Your task to perform on an android device: manage bookmarks in the chrome app Image 0: 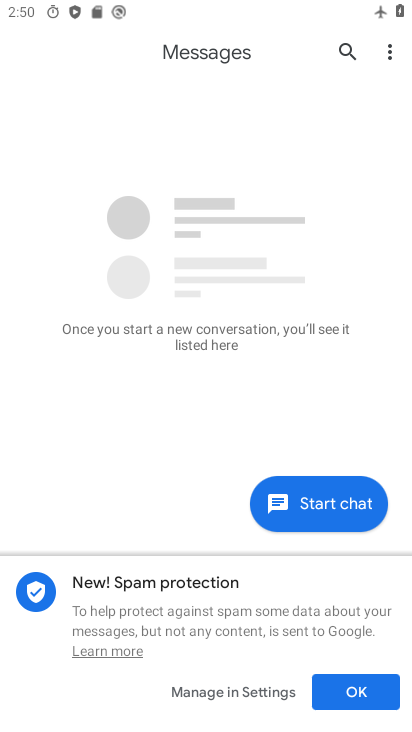
Step 0: press home button
Your task to perform on an android device: manage bookmarks in the chrome app Image 1: 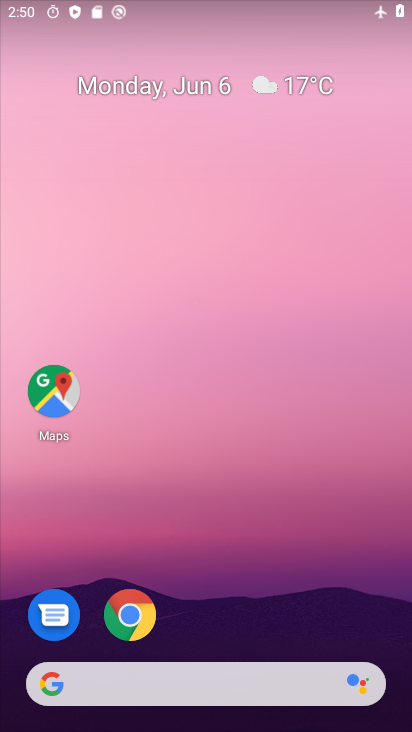
Step 1: click (136, 617)
Your task to perform on an android device: manage bookmarks in the chrome app Image 2: 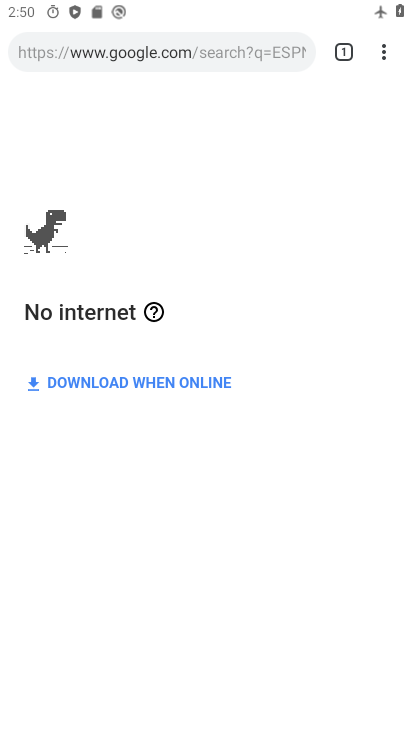
Step 2: click (381, 49)
Your task to perform on an android device: manage bookmarks in the chrome app Image 3: 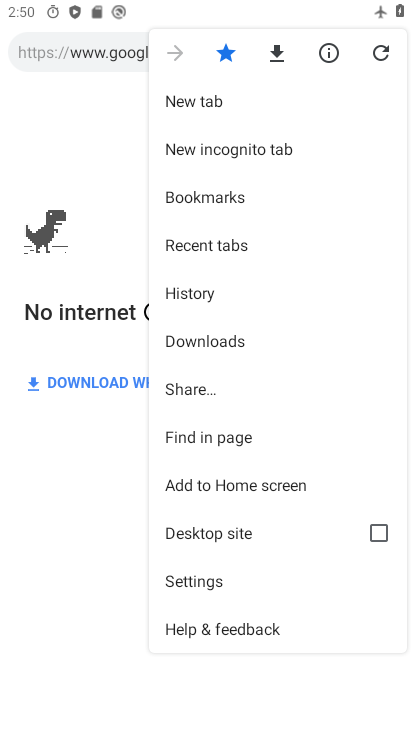
Step 3: click (211, 192)
Your task to perform on an android device: manage bookmarks in the chrome app Image 4: 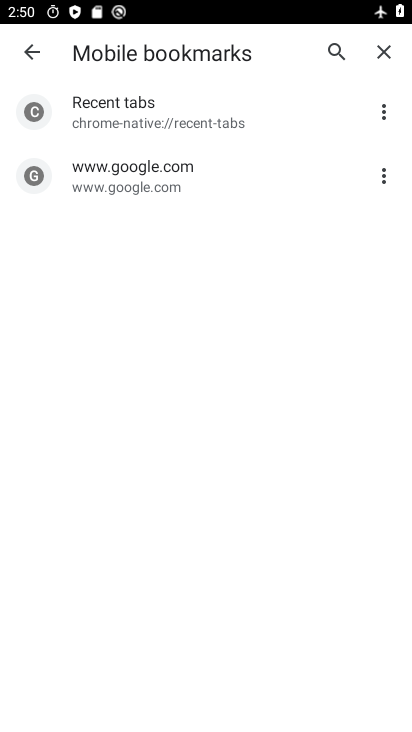
Step 4: click (379, 112)
Your task to perform on an android device: manage bookmarks in the chrome app Image 5: 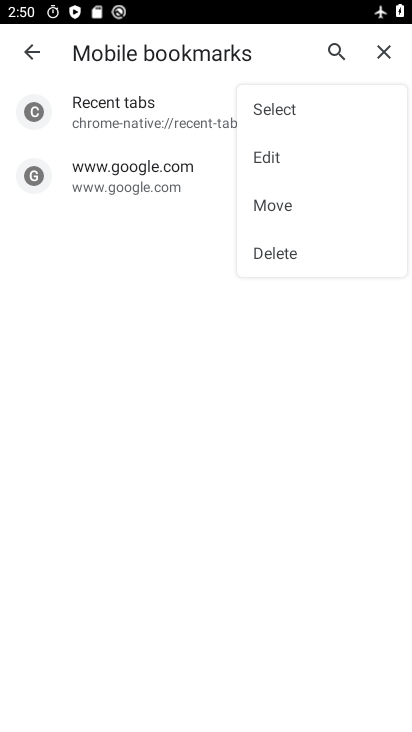
Step 5: click (296, 108)
Your task to perform on an android device: manage bookmarks in the chrome app Image 6: 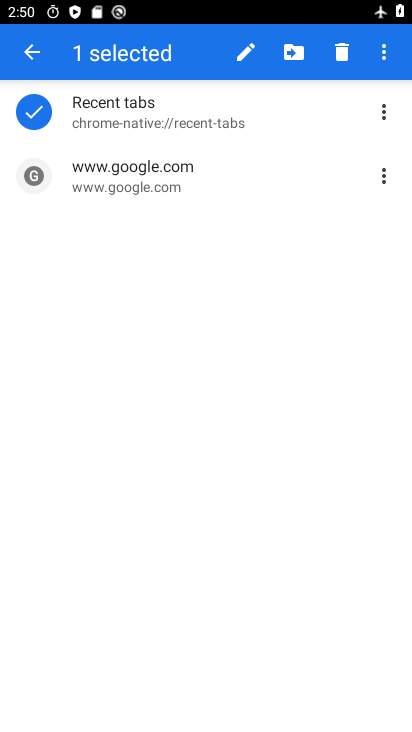
Step 6: click (129, 174)
Your task to perform on an android device: manage bookmarks in the chrome app Image 7: 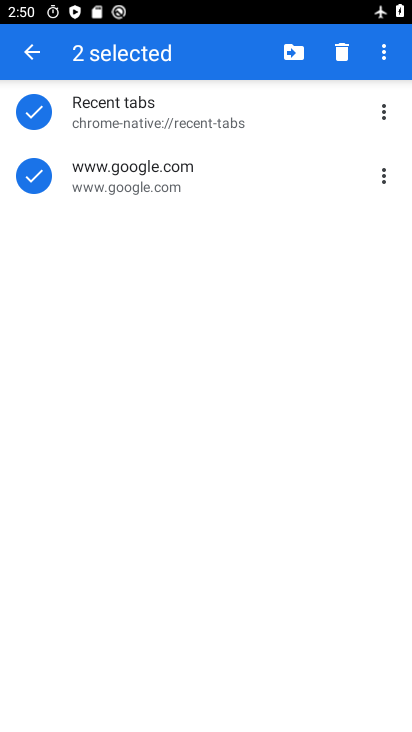
Step 7: click (294, 55)
Your task to perform on an android device: manage bookmarks in the chrome app Image 8: 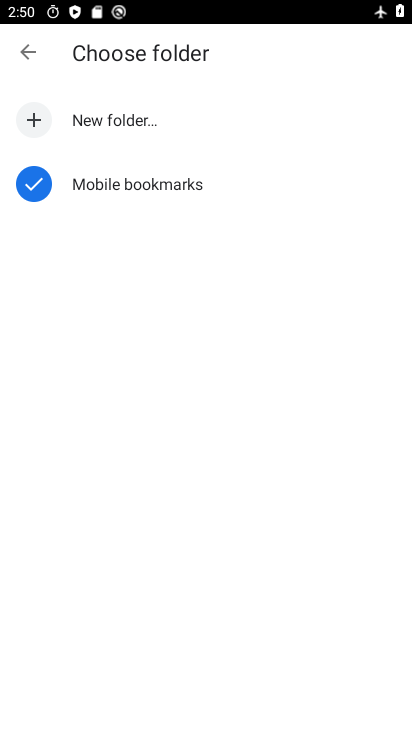
Step 8: click (88, 116)
Your task to perform on an android device: manage bookmarks in the chrome app Image 9: 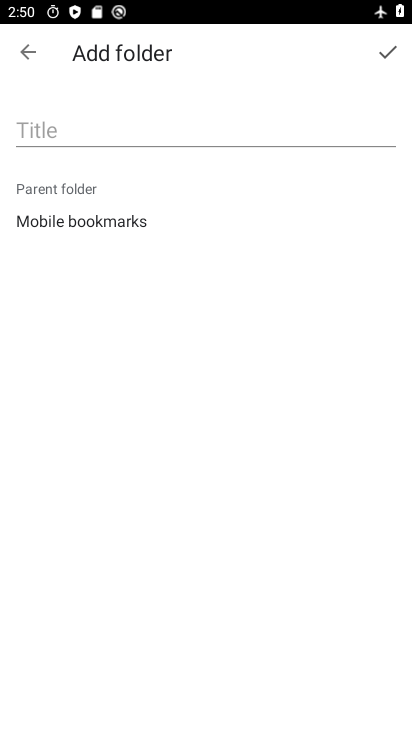
Step 9: click (105, 122)
Your task to perform on an android device: manage bookmarks in the chrome app Image 10: 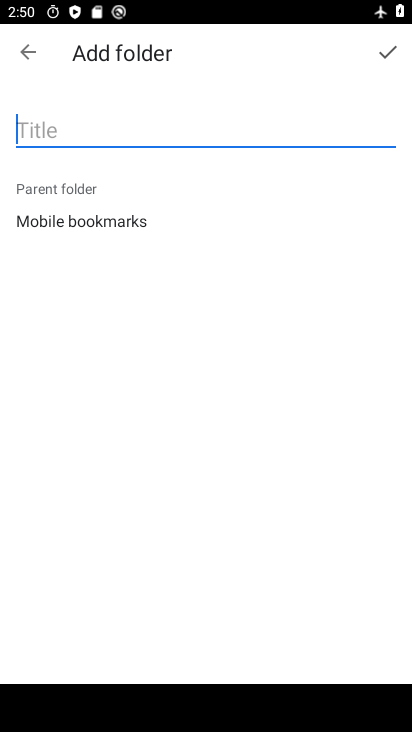
Step 10: type "bloood"
Your task to perform on an android device: manage bookmarks in the chrome app Image 11: 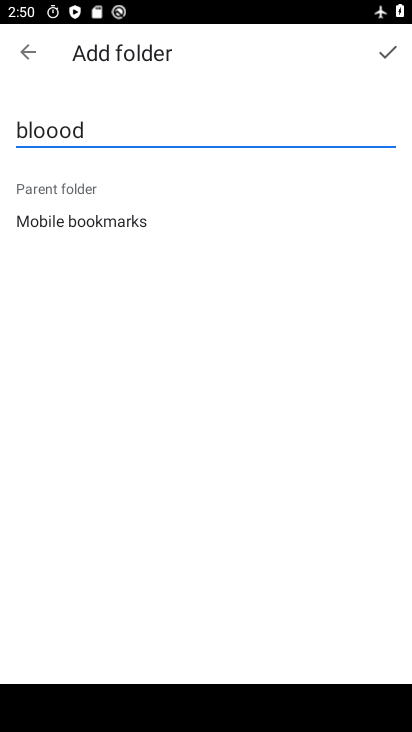
Step 11: click (392, 49)
Your task to perform on an android device: manage bookmarks in the chrome app Image 12: 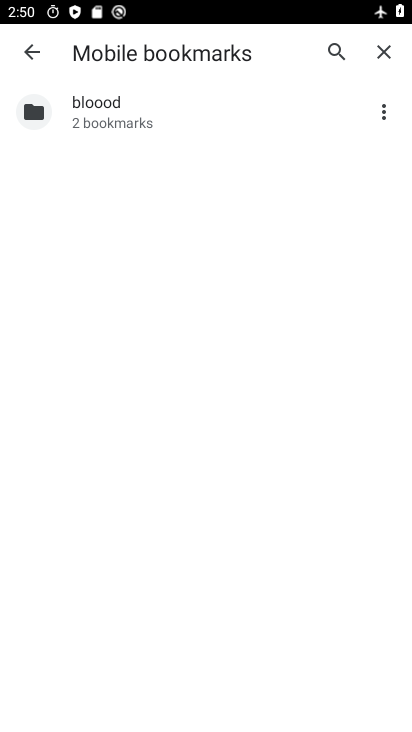
Step 12: task complete